Your task to perform on an android device: Go to Google maps Image 0: 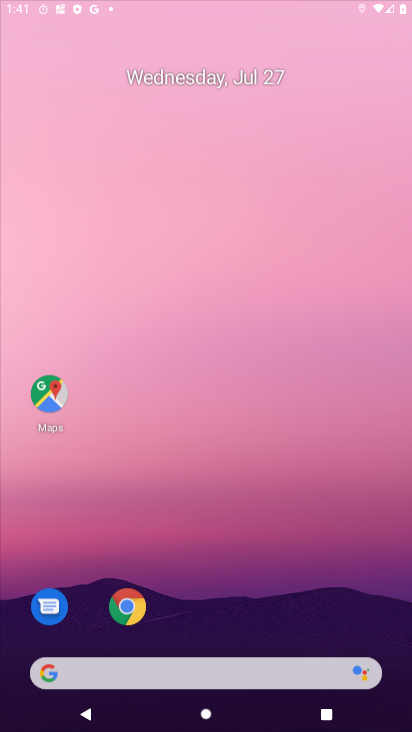
Step 0: drag from (172, 632) to (239, 150)
Your task to perform on an android device: Go to Google maps Image 1: 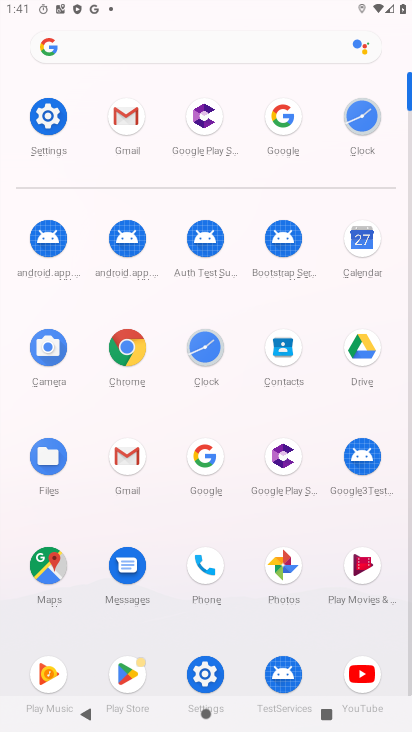
Step 1: click (53, 574)
Your task to perform on an android device: Go to Google maps Image 2: 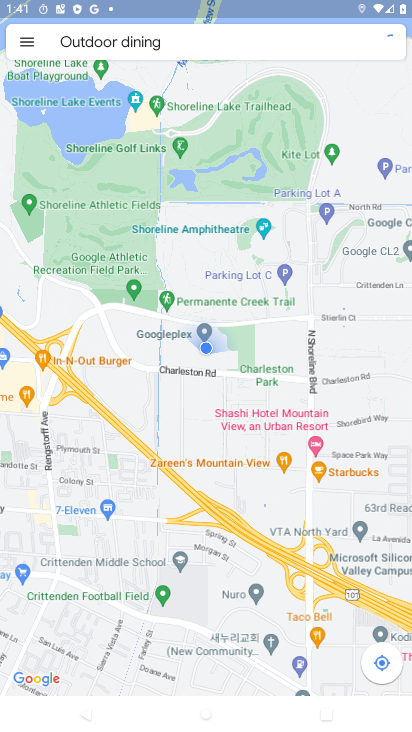
Step 2: task complete